Your task to perform on an android device: Search for pizza restaurants on Maps Image 0: 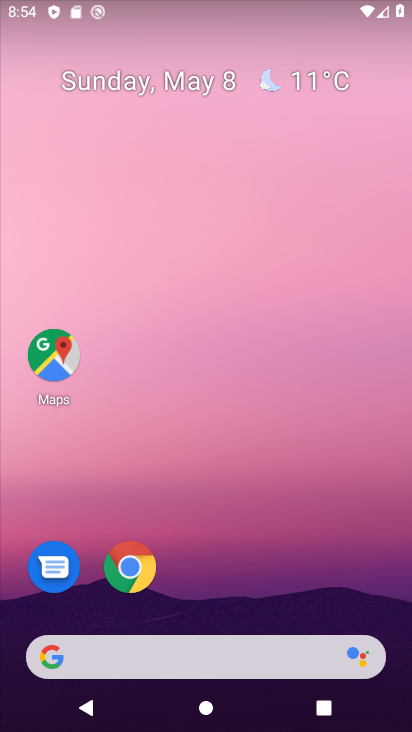
Step 0: click (46, 355)
Your task to perform on an android device: Search for pizza restaurants on Maps Image 1: 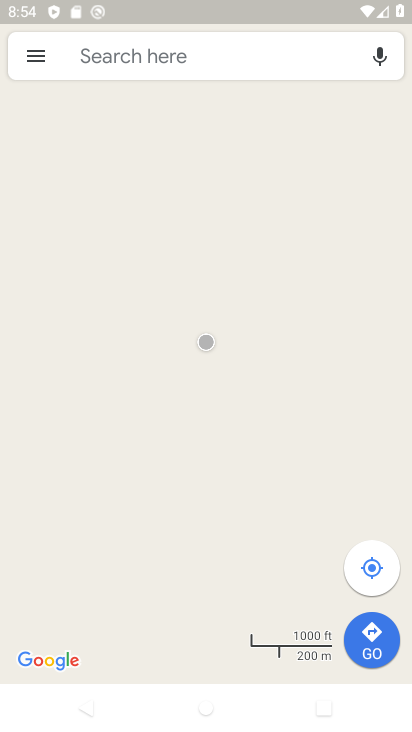
Step 1: click (168, 56)
Your task to perform on an android device: Search for pizza restaurants on Maps Image 2: 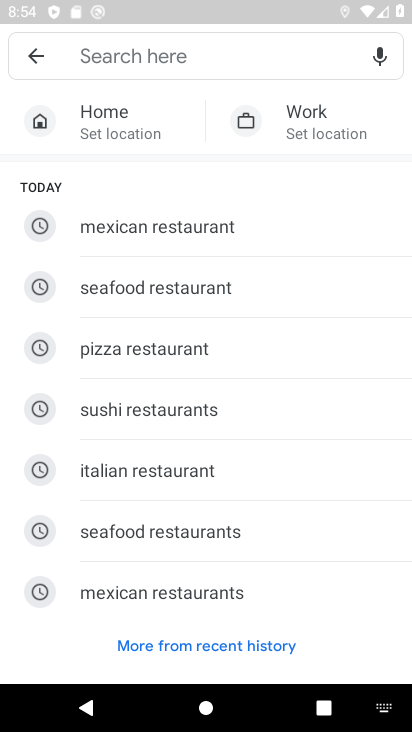
Step 2: type "pizza restaurants"
Your task to perform on an android device: Search for pizza restaurants on Maps Image 3: 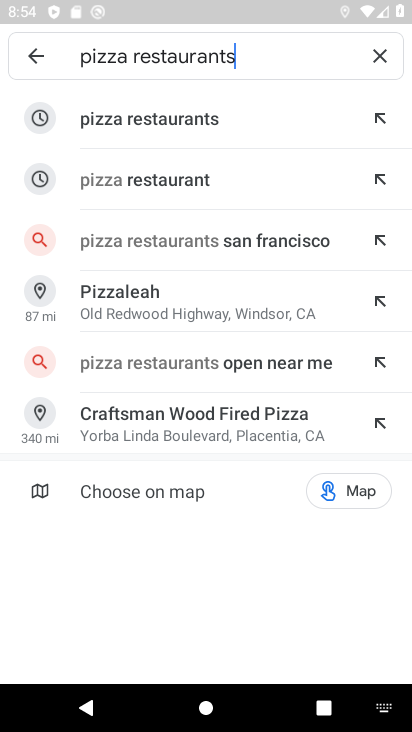
Step 3: click (160, 124)
Your task to perform on an android device: Search for pizza restaurants on Maps Image 4: 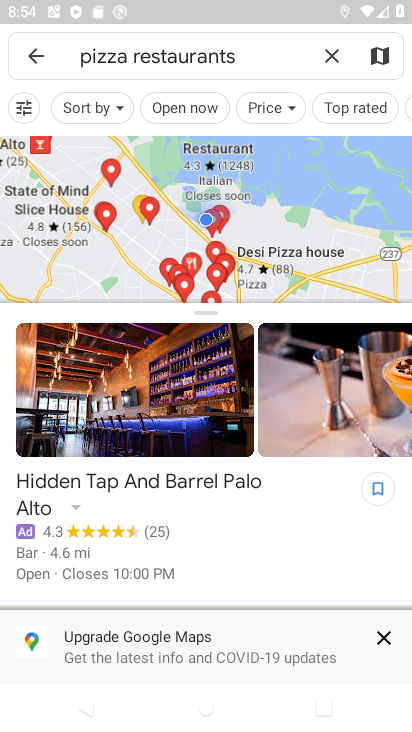
Step 4: task complete